Your task to perform on an android device: toggle wifi Image 0: 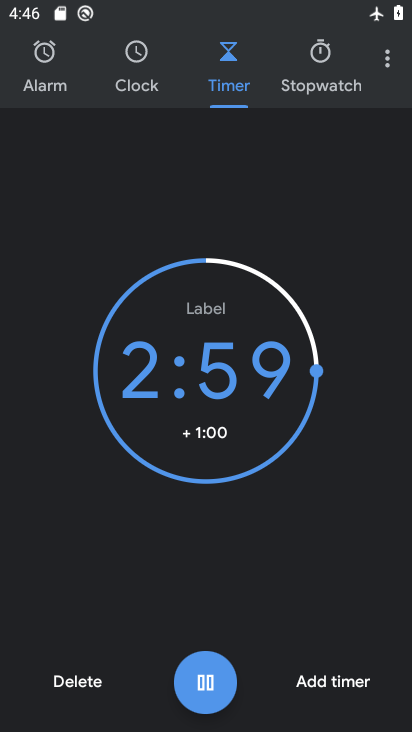
Step 0: press home button
Your task to perform on an android device: toggle wifi Image 1: 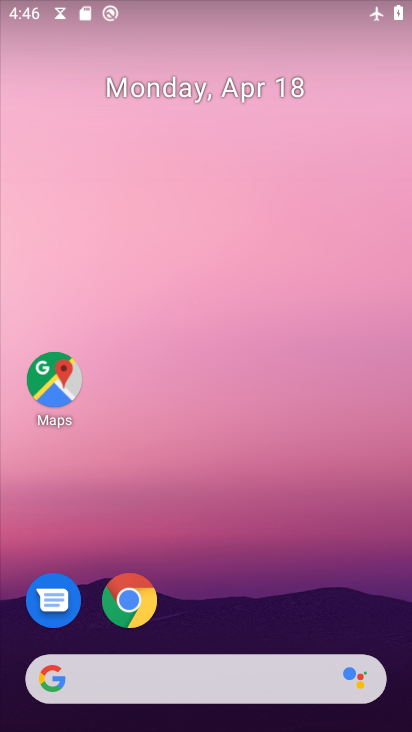
Step 1: drag from (234, 626) to (411, 46)
Your task to perform on an android device: toggle wifi Image 2: 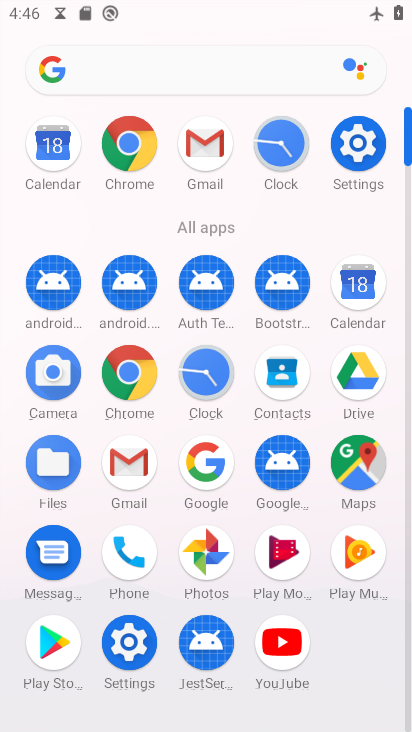
Step 2: click (362, 158)
Your task to perform on an android device: toggle wifi Image 3: 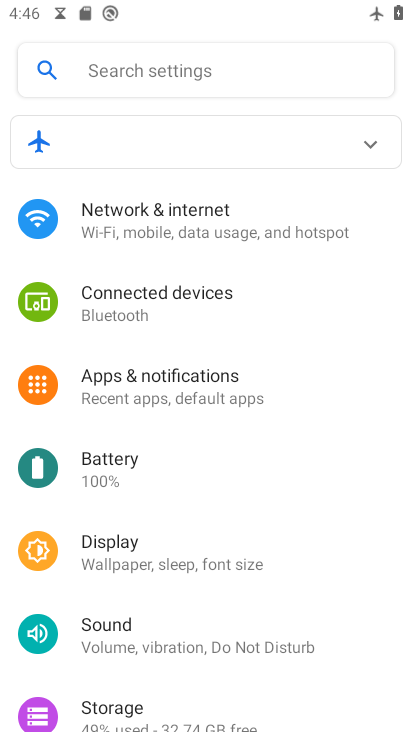
Step 3: click (203, 236)
Your task to perform on an android device: toggle wifi Image 4: 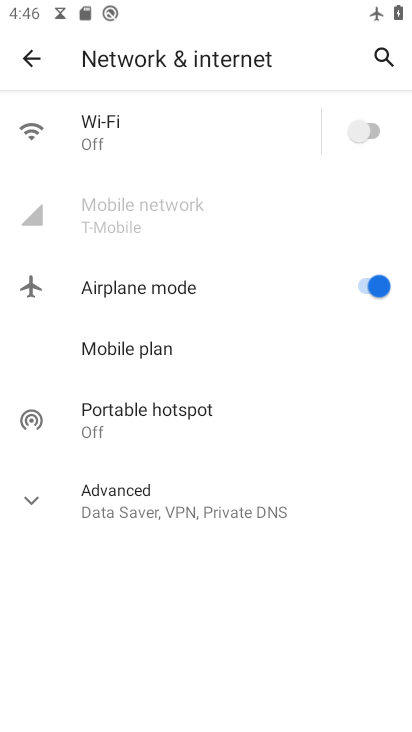
Step 4: click (369, 129)
Your task to perform on an android device: toggle wifi Image 5: 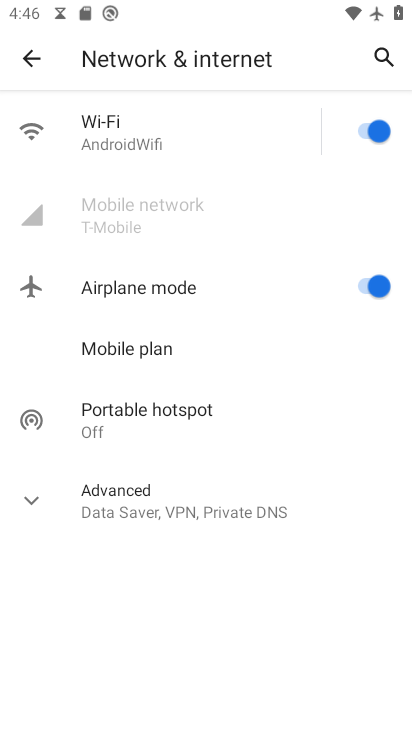
Step 5: task complete